Your task to perform on an android device: Open Google Image 0: 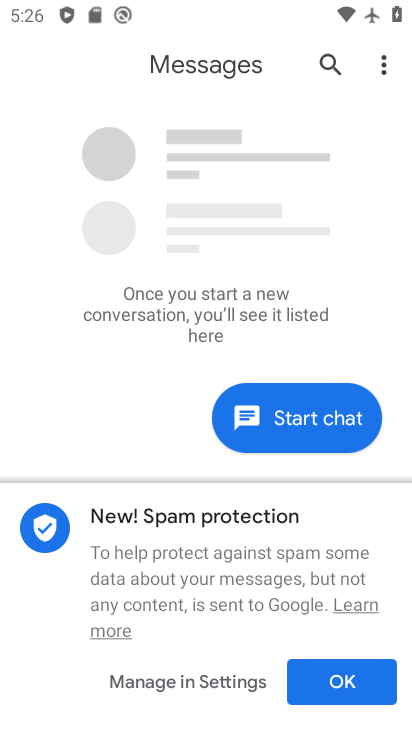
Step 0: press home button
Your task to perform on an android device: Open Google Image 1: 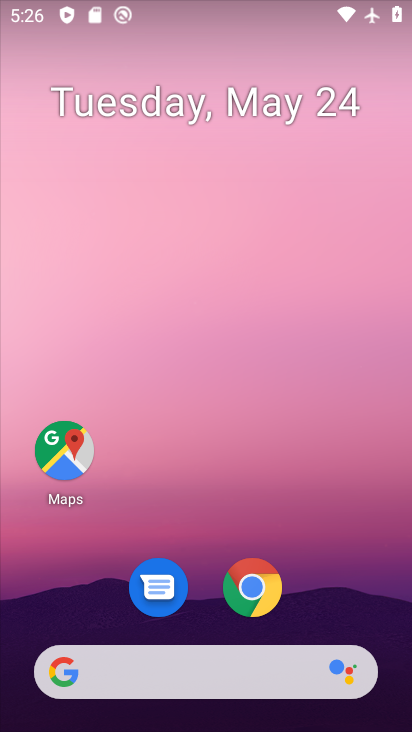
Step 1: drag from (331, 581) to (173, 25)
Your task to perform on an android device: Open Google Image 2: 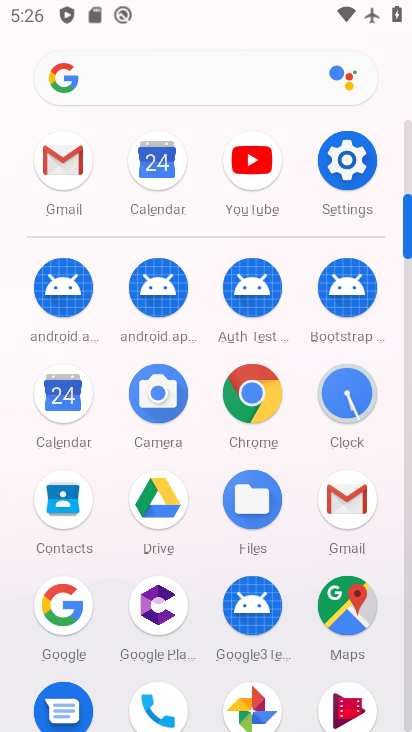
Step 2: click (62, 609)
Your task to perform on an android device: Open Google Image 3: 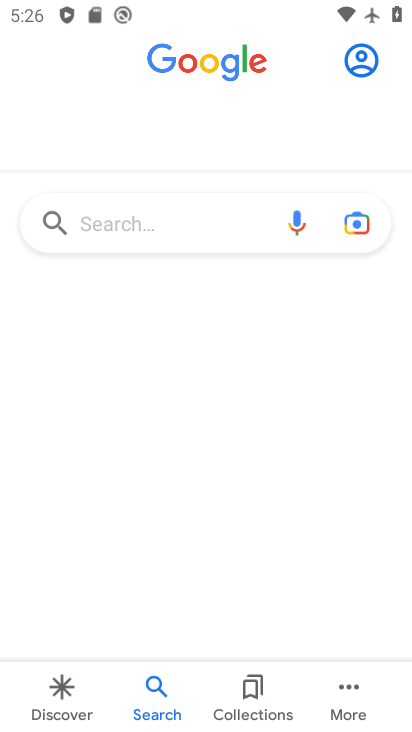
Step 3: task complete